Your task to perform on an android device: turn off sleep mode Image 0: 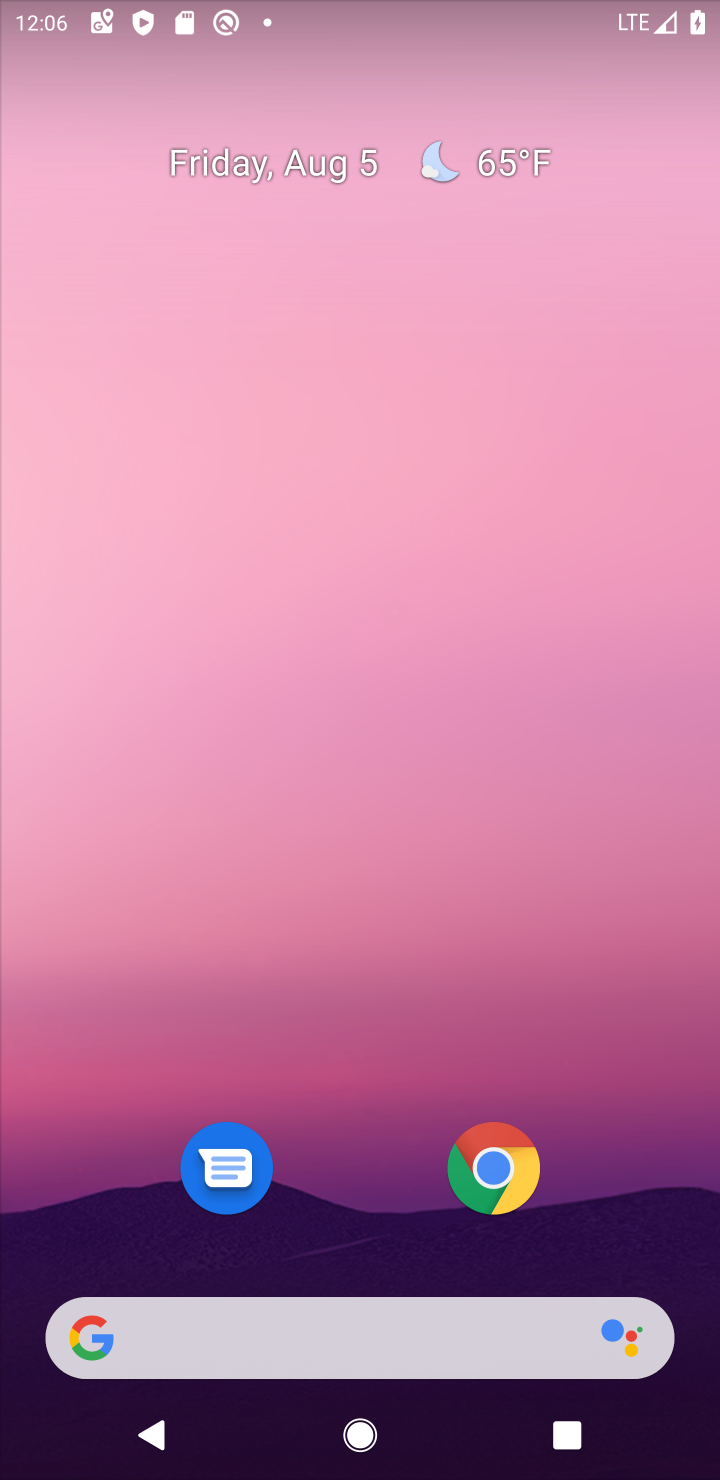
Step 0: drag from (642, 1191) to (400, 42)
Your task to perform on an android device: turn off sleep mode Image 1: 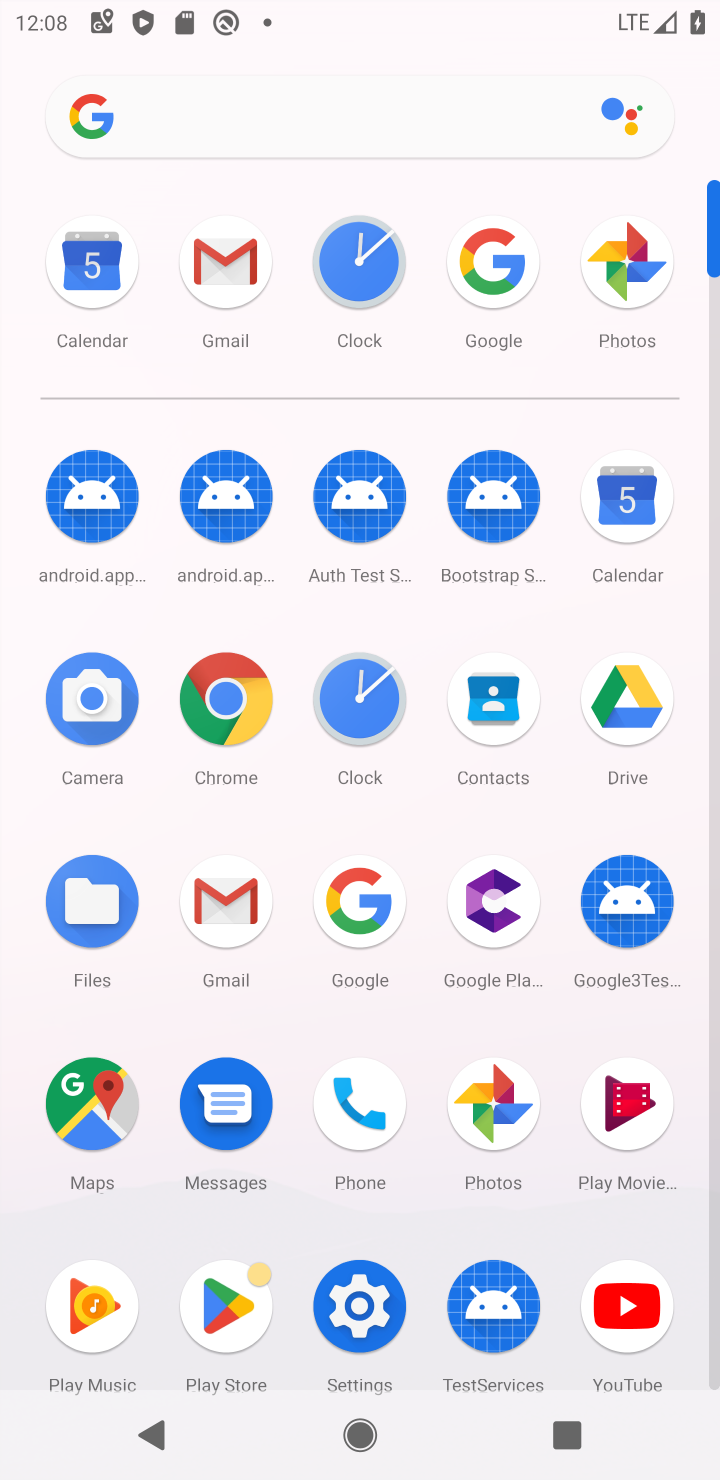
Step 1: click (324, 1321)
Your task to perform on an android device: turn off sleep mode Image 2: 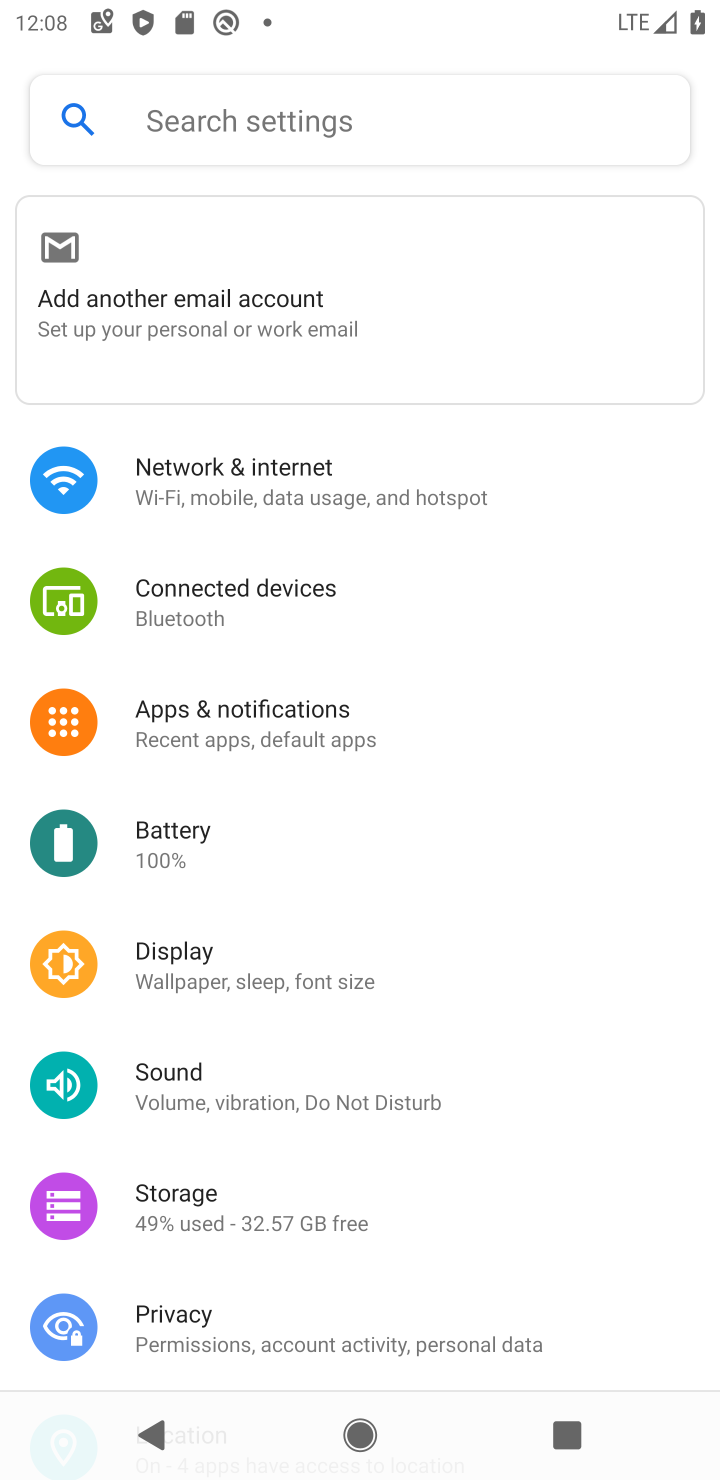
Step 2: task complete